Your task to perform on an android device: delete the emails in spam in the gmail app Image 0: 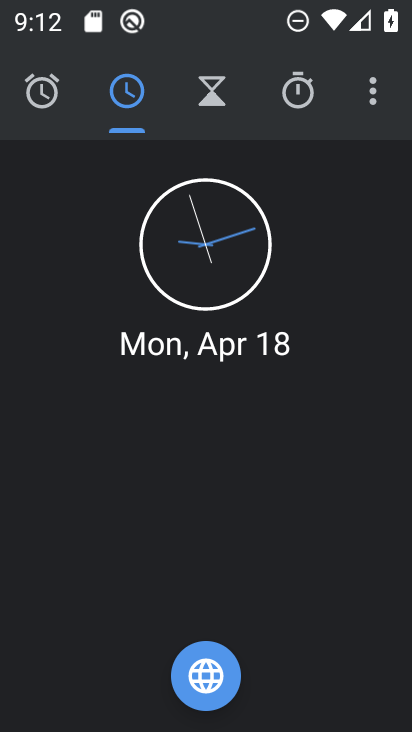
Step 0: press back button
Your task to perform on an android device: delete the emails in spam in the gmail app Image 1: 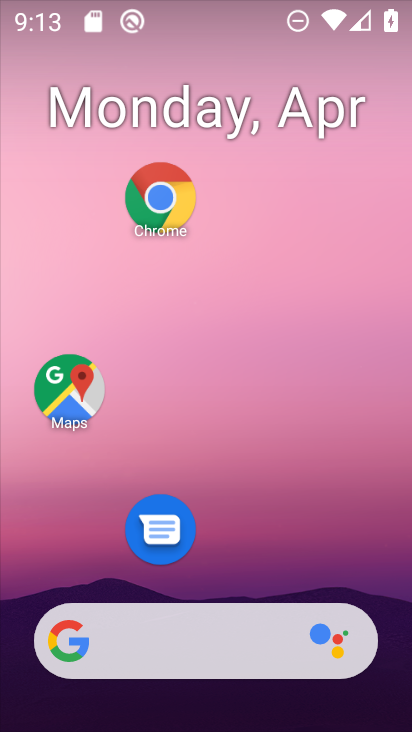
Step 1: drag from (257, 439) to (291, 17)
Your task to perform on an android device: delete the emails in spam in the gmail app Image 2: 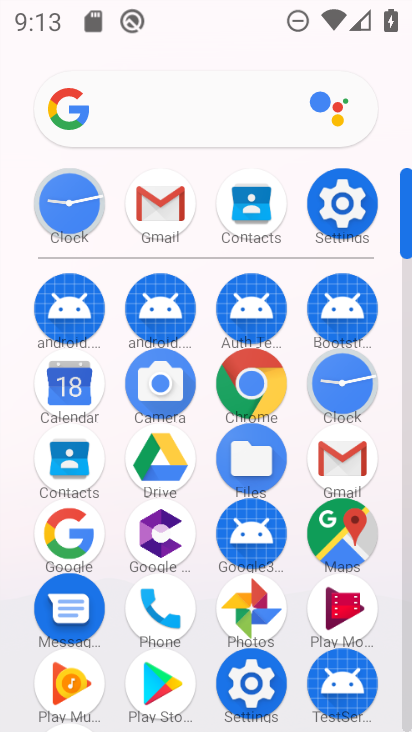
Step 2: click (164, 203)
Your task to perform on an android device: delete the emails in spam in the gmail app Image 3: 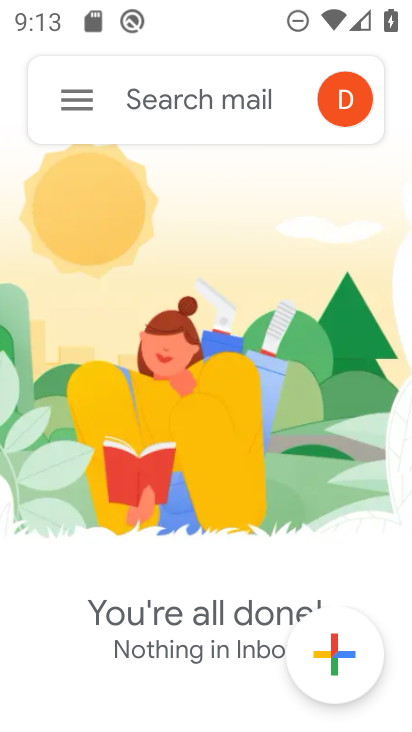
Step 3: click (76, 99)
Your task to perform on an android device: delete the emails in spam in the gmail app Image 4: 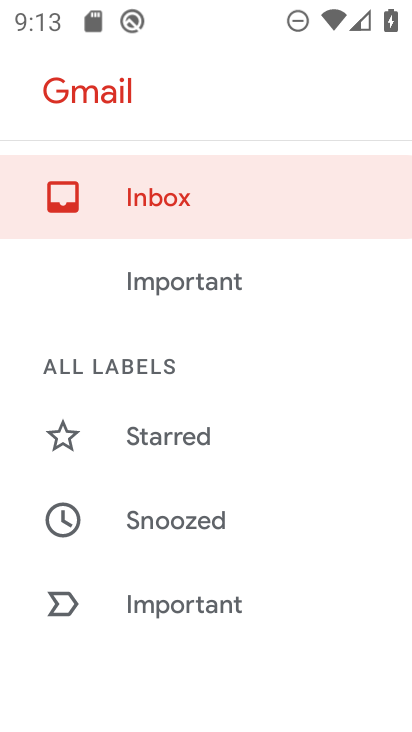
Step 4: drag from (179, 518) to (269, 84)
Your task to perform on an android device: delete the emails in spam in the gmail app Image 5: 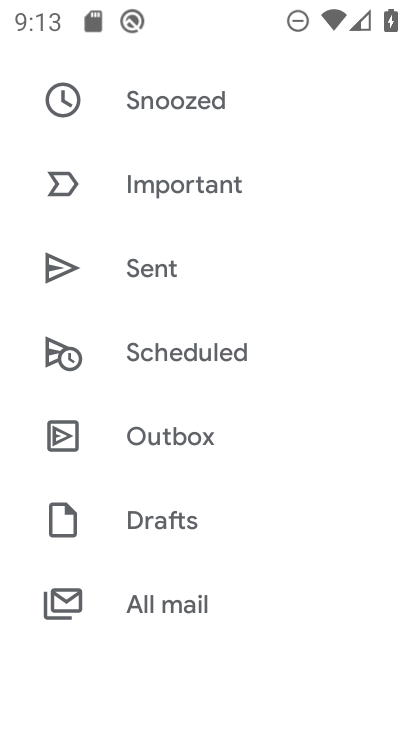
Step 5: drag from (184, 582) to (343, 74)
Your task to perform on an android device: delete the emails in spam in the gmail app Image 6: 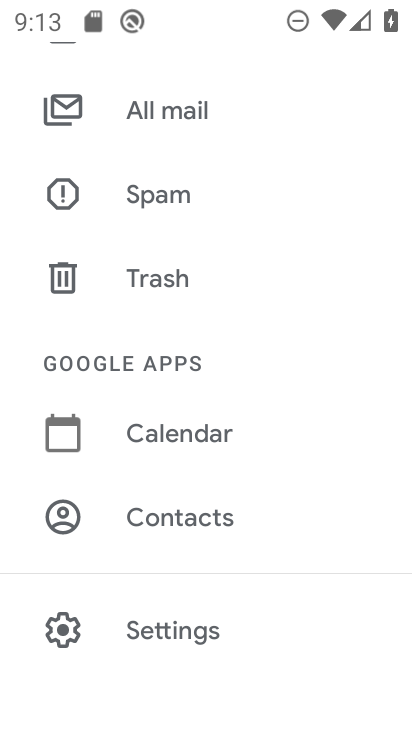
Step 6: click (160, 191)
Your task to perform on an android device: delete the emails in spam in the gmail app Image 7: 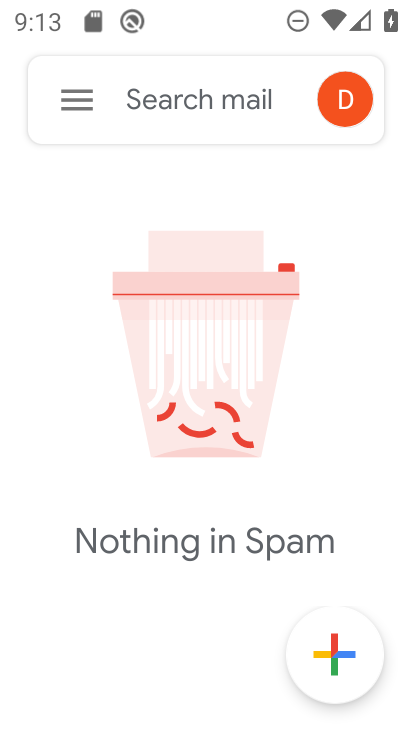
Step 7: task complete